Your task to perform on an android device: When is my next appointment? Image 0: 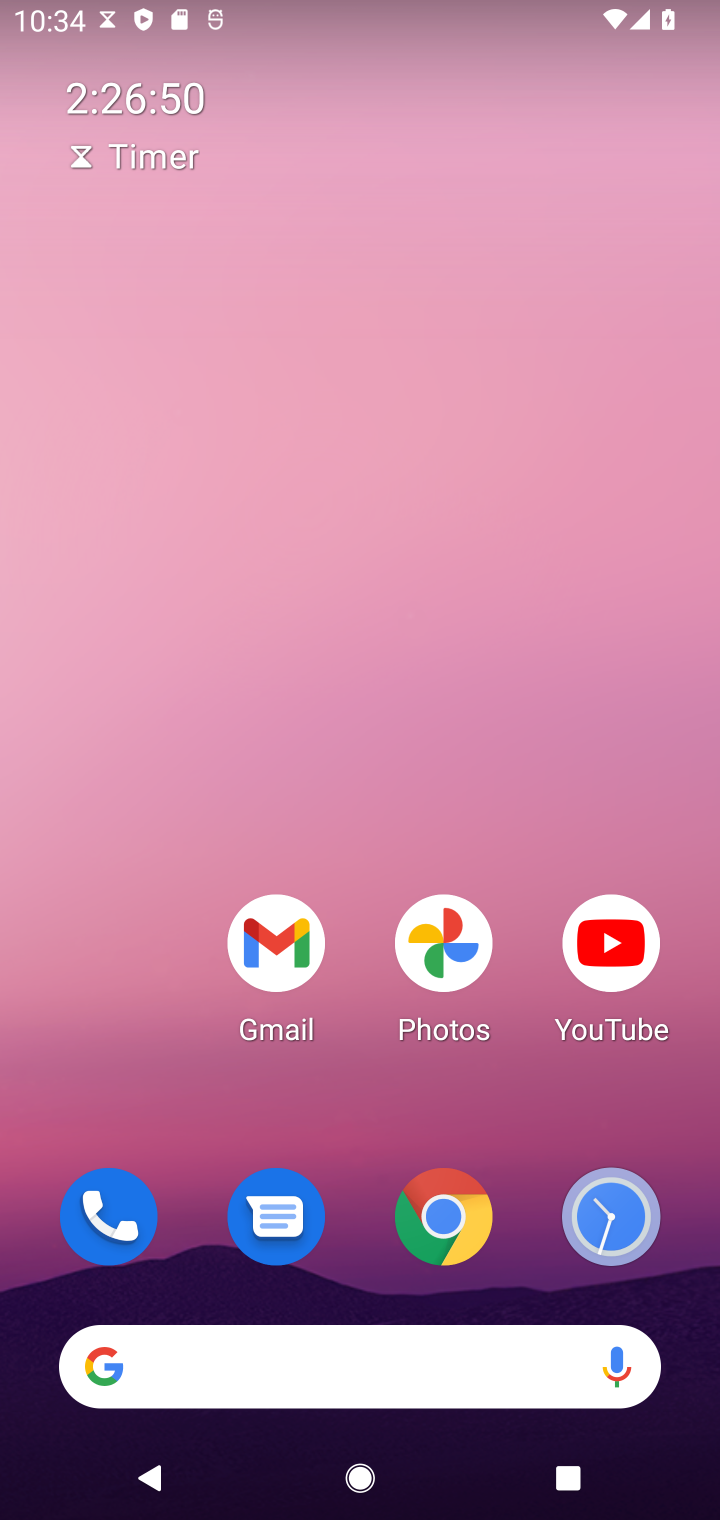
Step 0: drag from (411, 423) to (502, 28)
Your task to perform on an android device: When is my next appointment? Image 1: 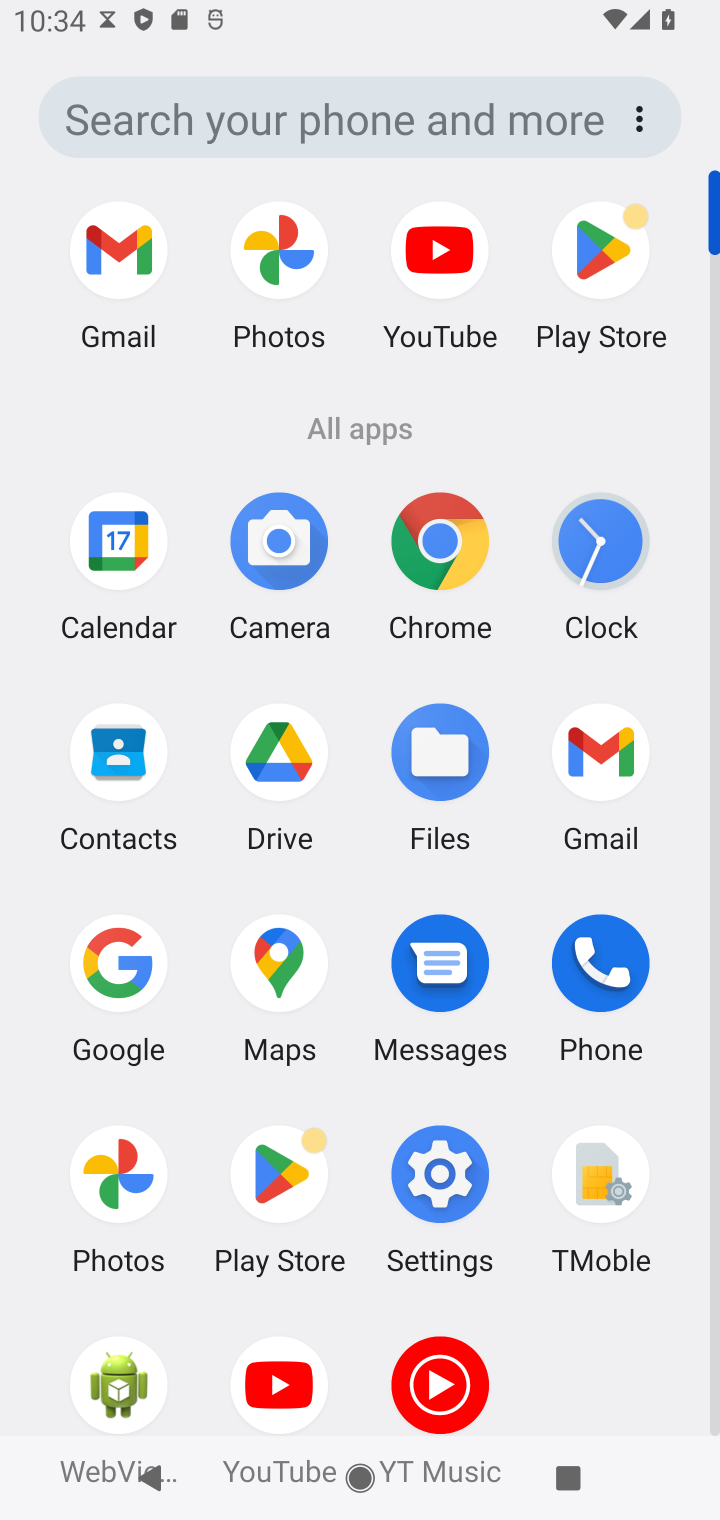
Step 1: click (124, 562)
Your task to perform on an android device: When is my next appointment? Image 2: 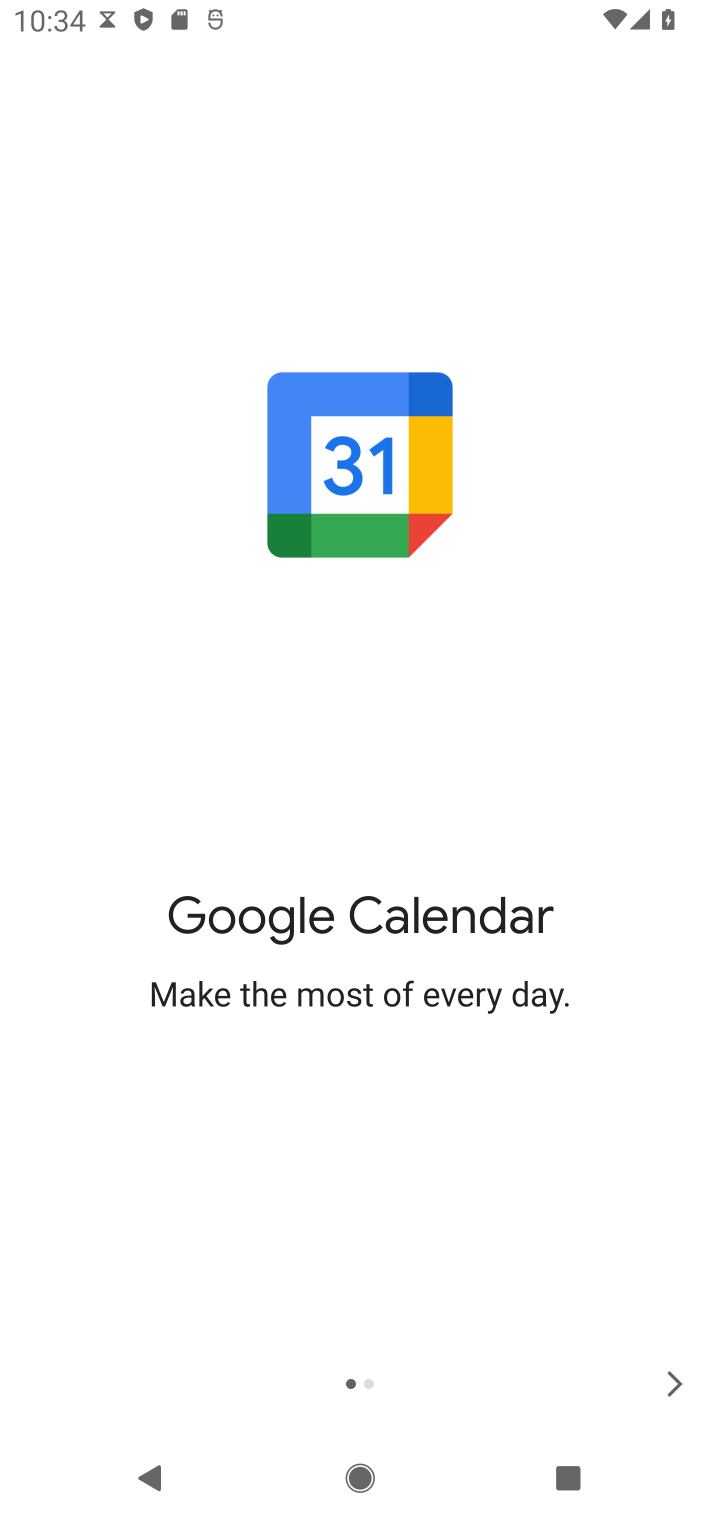
Step 2: click (666, 1369)
Your task to perform on an android device: When is my next appointment? Image 3: 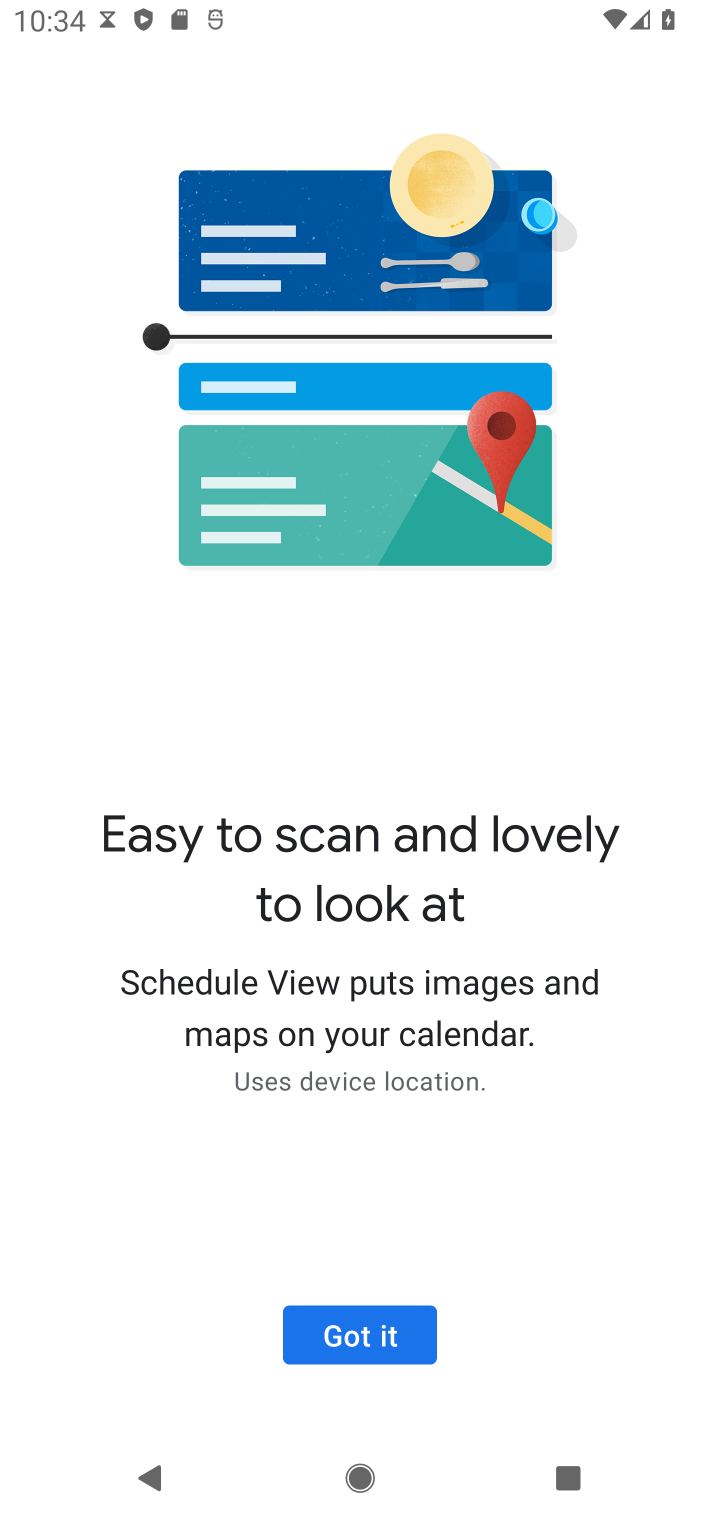
Step 3: click (353, 1312)
Your task to perform on an android device: When is my next appointment? Image 4: 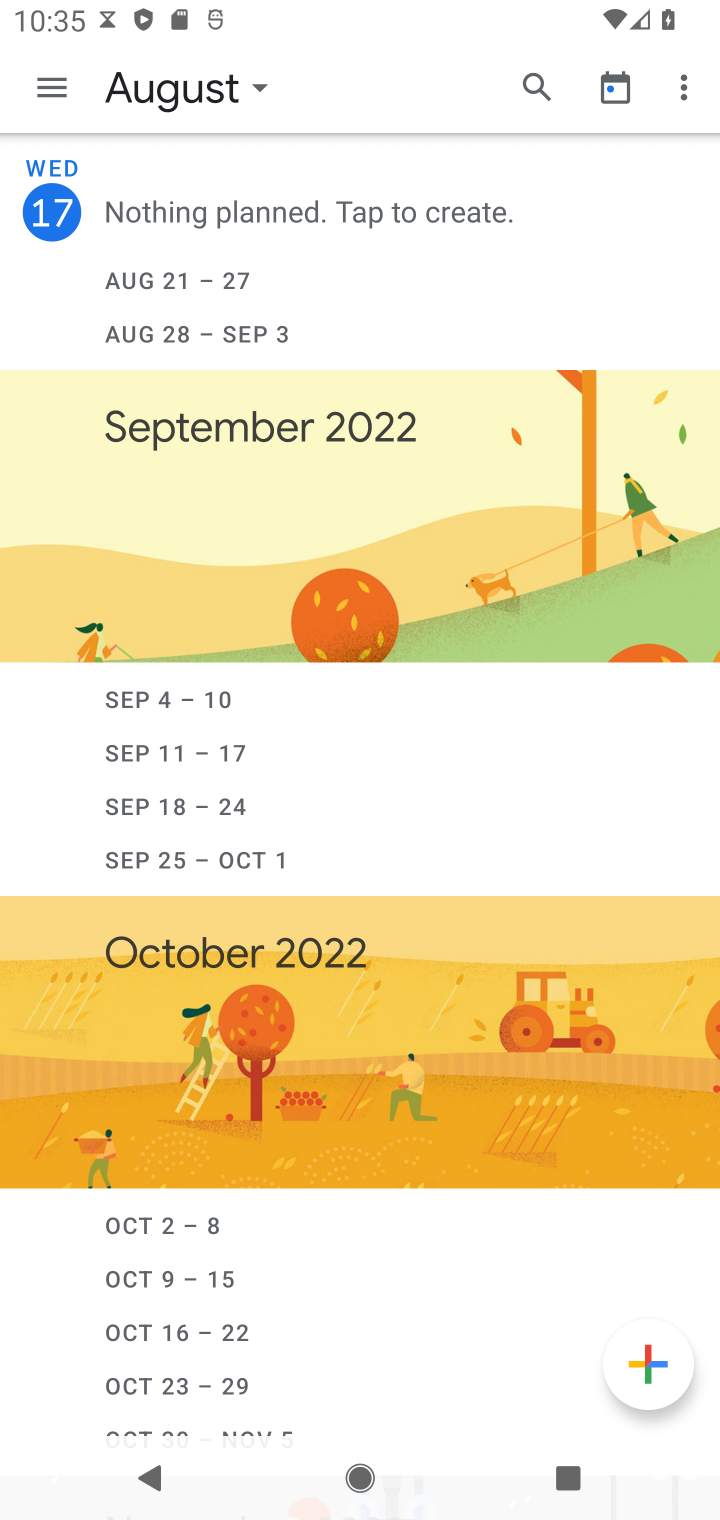
Step 4: task complete